Your task to perform on an android device: turn off picture-in-picture Image 0: 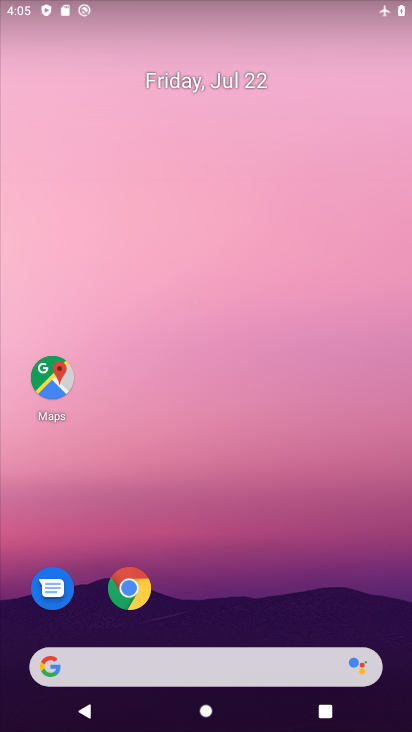
Step 0: click (140, 589)
Your task to perform on an android device: turn off picture-in-picture Image 1: 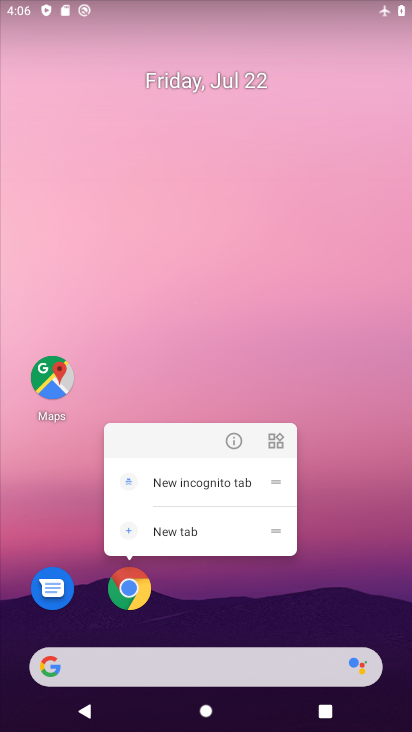
Step 1: click (120, 591)
Your task to perform on an android device: turn off picture-in-picture Image 2: 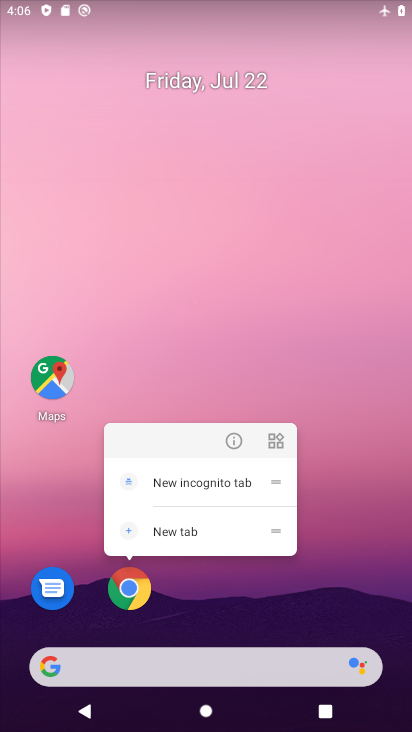
Step 2: click (134, 601)
Your task to perform on an android device: turn off picture-in-picture Image 3: 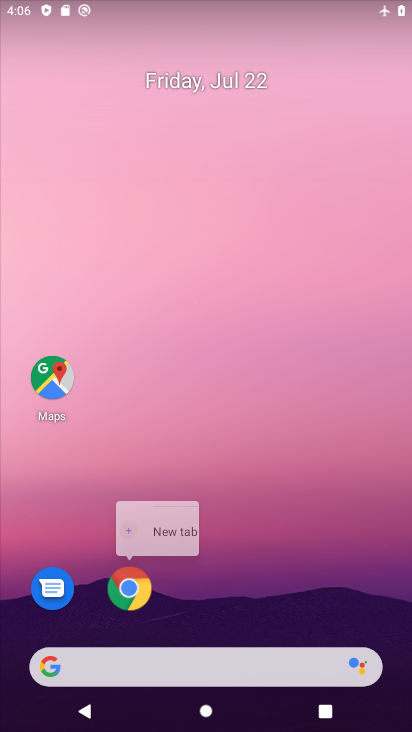
Step 3: click (237, 445)
Your task to perform on an android device: turn off picture-in-picture Image 4: 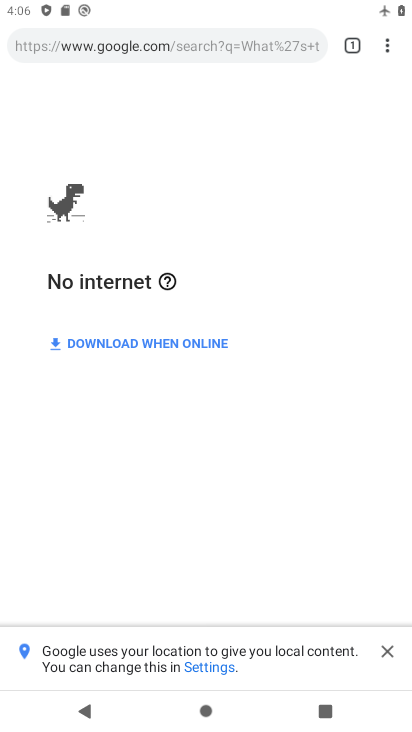
Step 4: click (235, 442)
Your task to perform on an android device: turn off picture-in-picture Image 5: 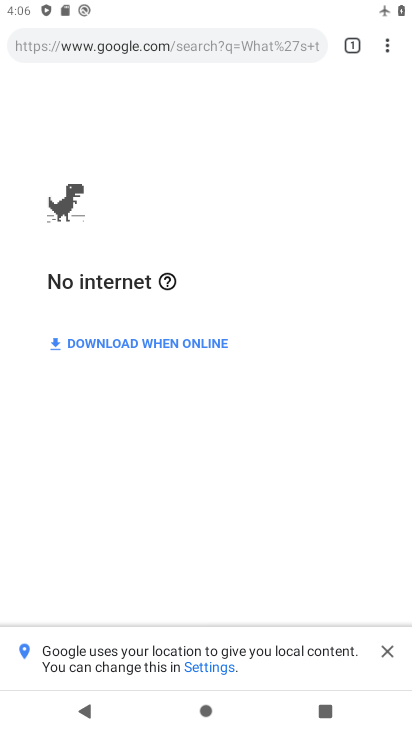
Step 5: press home button
Your task to perform on an android device: turn off picture-in-picture Image 6: 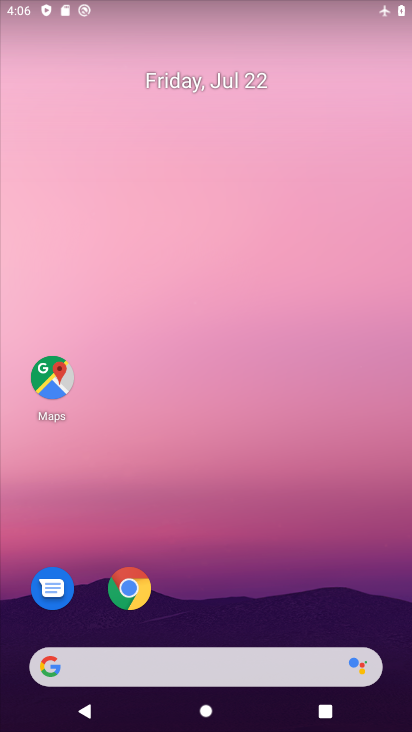
Step 6: click (141, 599)
Your task to perform on an android device: turn off picture-in-picture Image 7: 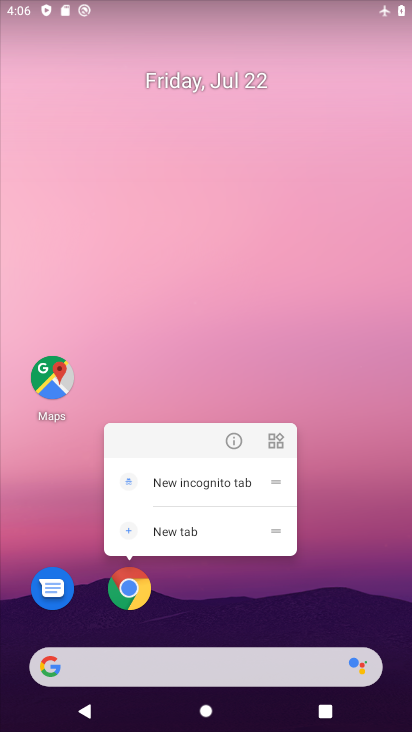
Step 7: click (228, 448)
Your task to perform on an android device: turn off picture-in-picture Image 8: 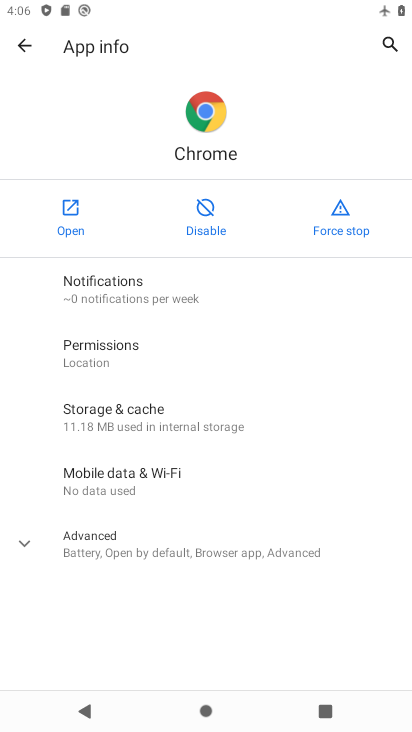
Step 8: click (159, 537)
Your task to perform on an android device: turn off picture-in-picture Image 9: 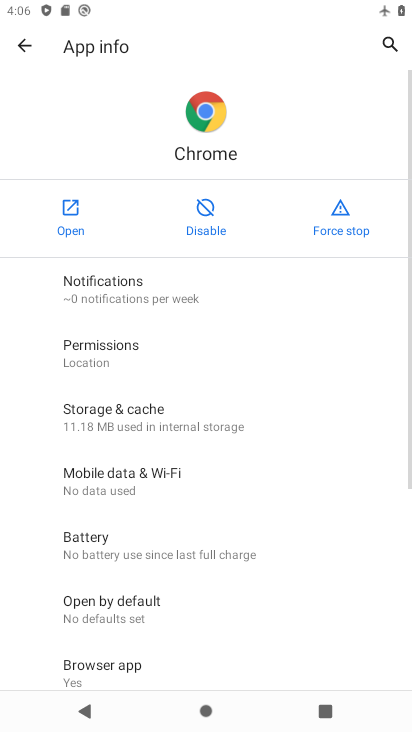
Step 9: drag from (193, 630) to (155, 362)
Your task to perform on an android device: turn off picture-in-picture Image 10: 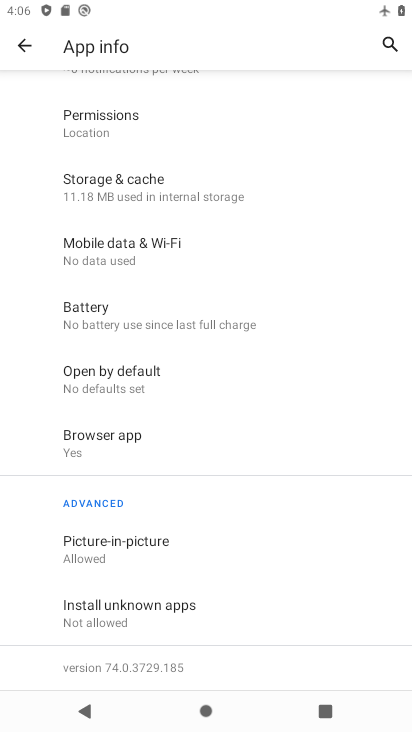
Step 10: click (163, 550)
Your task to perform on an android device: turn off picture-in-picture Image 11: 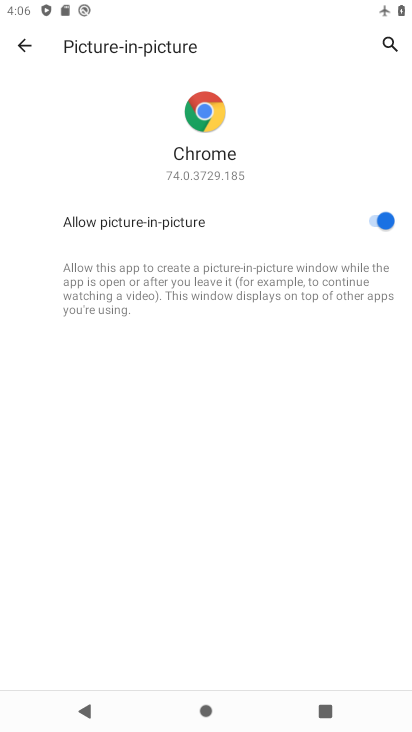
Step 11: click (379, 219)
Your task to perform on an android device: turn off picture-in-picture Image 12: 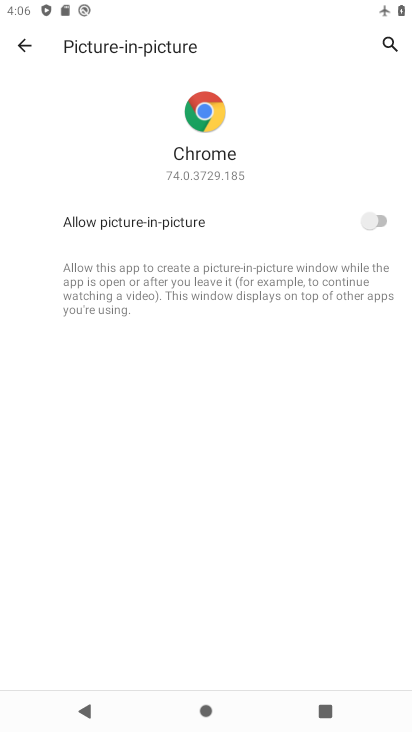
Step 12: task complete